Your task to perform on an android device: Search for a 4k TV on Best Buy Image 0: 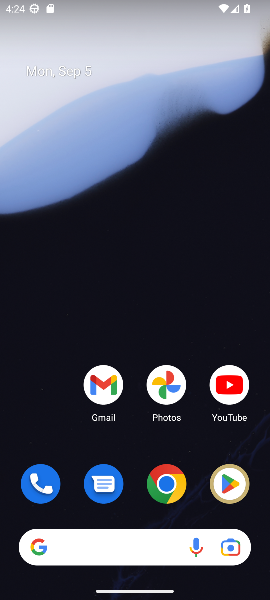
Step 0: click (171, 488)
Your task to perform on an android device: Search for a 4k TV on Best Buy Image 1: 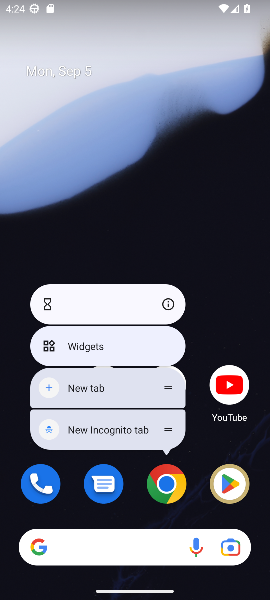
Step 1: click (171, 488)
Your task to perform on an android device: Search for a 4k TV on Best Buy Image 2: 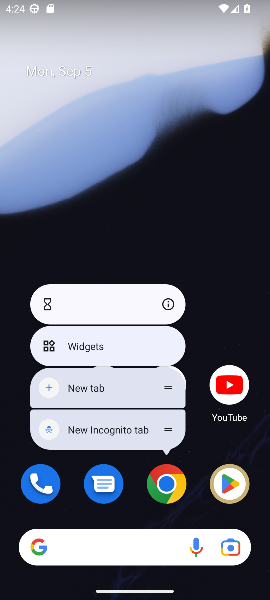
Step 2: click (164, 489)
Your task to perform on an android device: Search for a 4k TV on Best Buy Image 3: 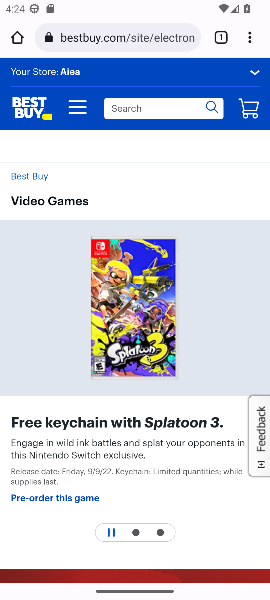
Step 3: click (160, 32)
Your task to perform on an android device: Search for a 4k TV on Best Buy Image 4: 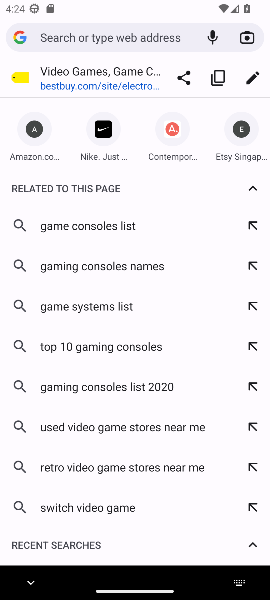
Step 4: type "Best Buy"
Your task to perform on an android device: Search for a 4k TV on Best Buy Image 5: 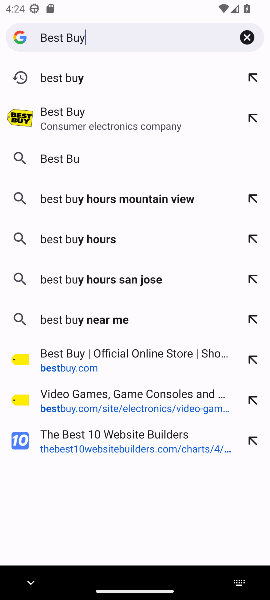
Step 5: press enter
Your task to perform on an android device: Search for a 4k TV on Best Buy Image 6: 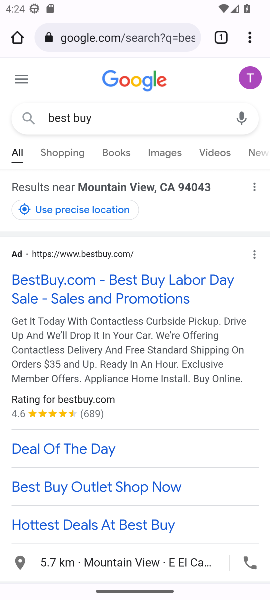
Step 6: drag from (189, 536) to (259, 173)
Your task to perform on an android device: Search for a 4k TV on Best Buy Image 7: 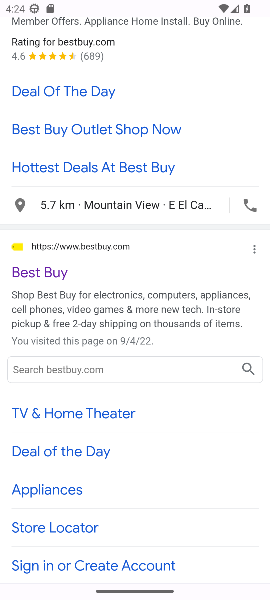
Step 7: click (49, 271)
Your task to perform on an android device: Search for a 4k TV on Best Buy Image 8: 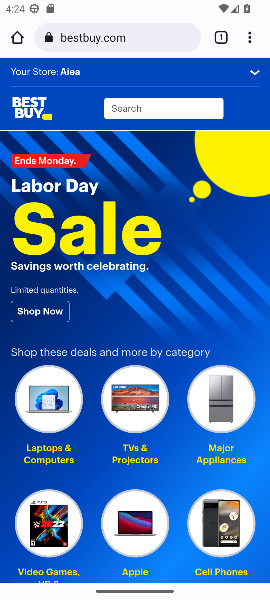
Step 8: click (164, 104)
Your task to perform on an android device: Search for a 4k TV on Best Buy Image 9: 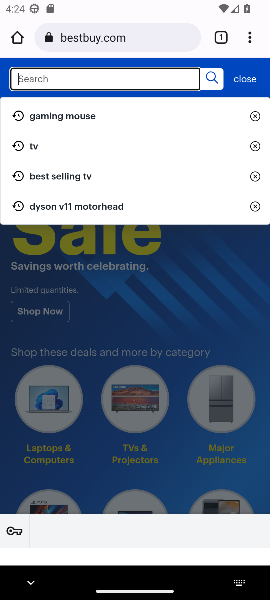
Step 9: press enter
Your task to perform on an android device: Search for a 4k TV on Best Buy Image 10: 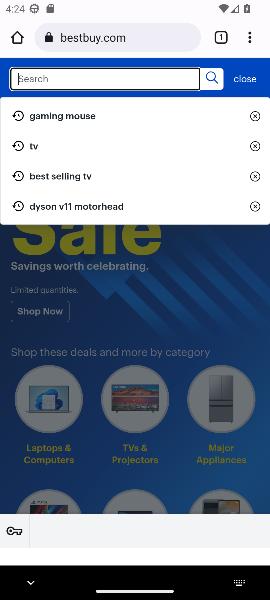
Step 10: type "4k TV "
Your task to perform on an android device: Search for a 4k TV on Best Buy Image 11: 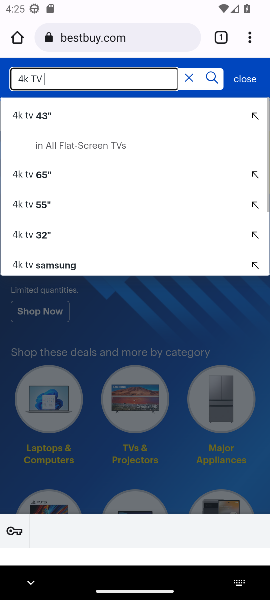
Step 11: click (207, 76)
Your task to perform on an android device: Search for a 4k TV on Best Buy Image 12: 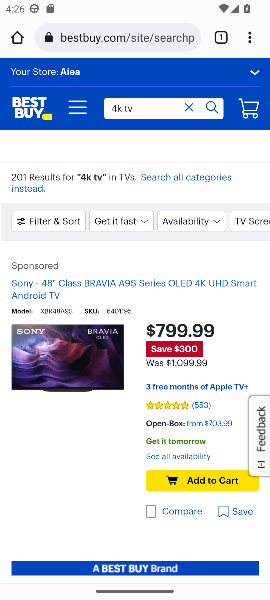
Step 12: task complete